Your task to perform on an android device: turn off notifications in google photos Image 0: 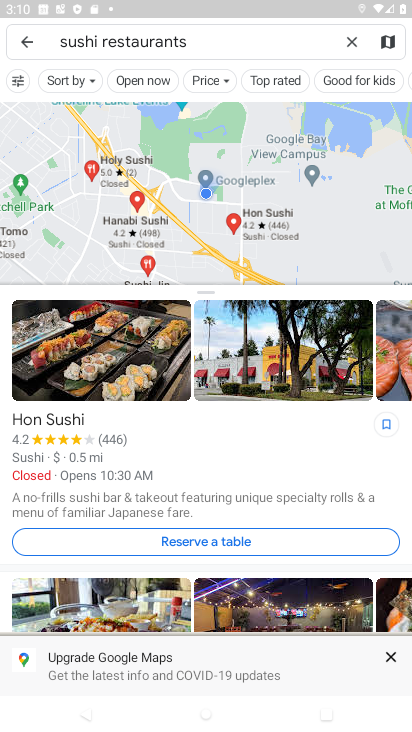
Step 0: press home button
Your task to perform on an android device: turn off notifications in google photos Image 1: 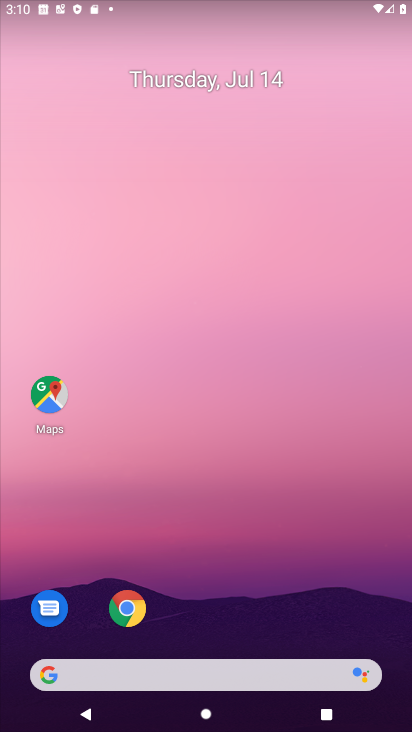
Step 1: drag from (231, 555) to (275, 5)
Your task to perform on an android device: turn off notifications in google photos Image 2: 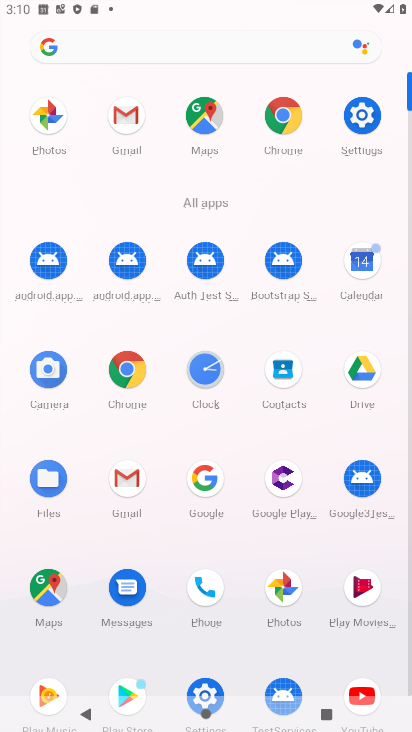
Step 2: click (282, 577)
Your task to perform on an android device: turn off notifications in google photos Image 3: 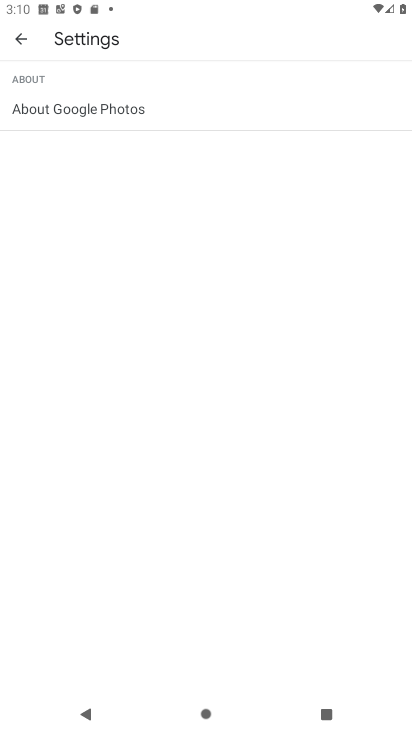
Step 3: click (11, 44)
Your task to perform on an android device: turn off notifications in google photos Image 4: 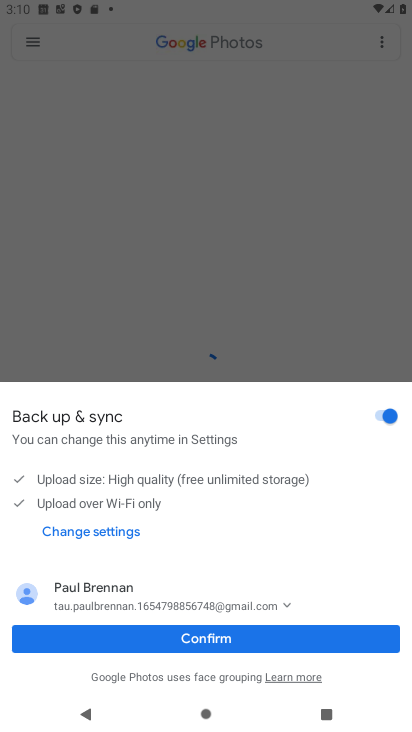
Step 4: click (131, 648)
Your task to perform on an android device: turn off notifications in google photos Image 5: 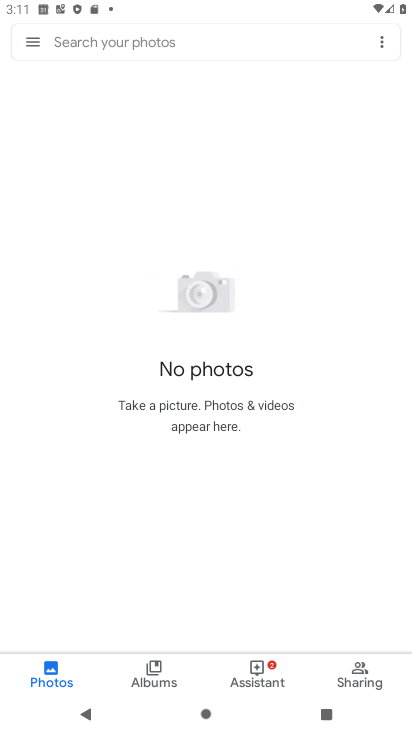
Step 5: click (31, 45)
Your task to perform on an android device: turn off notifications in google photos Image 6: 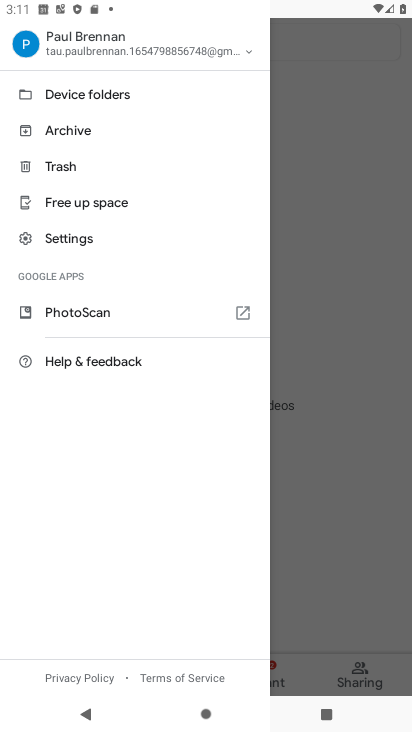
Step 6: click (73, 235)
Your task to perform on an android device: turn off notifications in google photos Image 7: 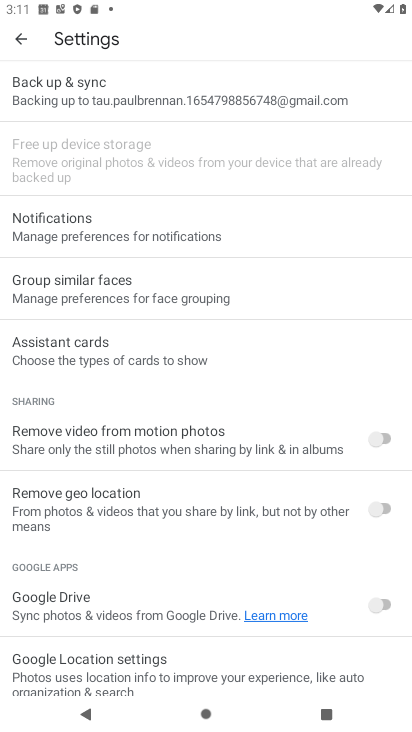
Step 7: click (67, 212)
Your task to perform on an android device: turn off notifications in google photos Image 8: 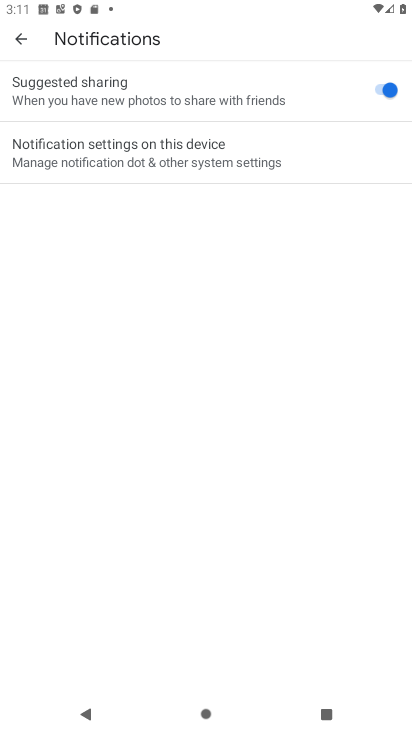
Step 8: click (180, 150)
Your task to perform on an android device: turn off notifications in google photos Image 9: 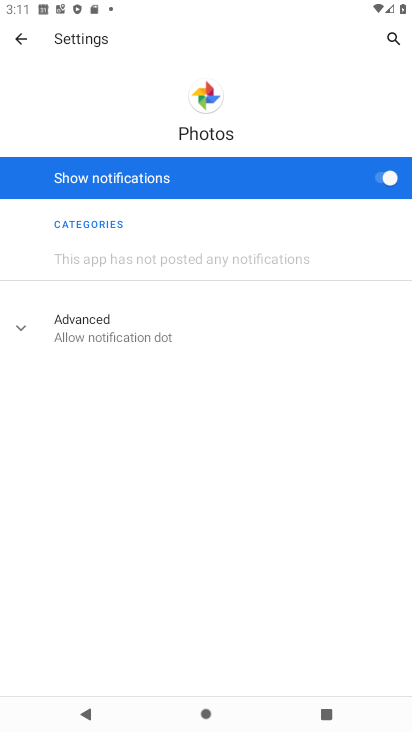
Step 9: click (360, 178)
Your task to perform on an android device: turn off notifications in google photos Image 10: 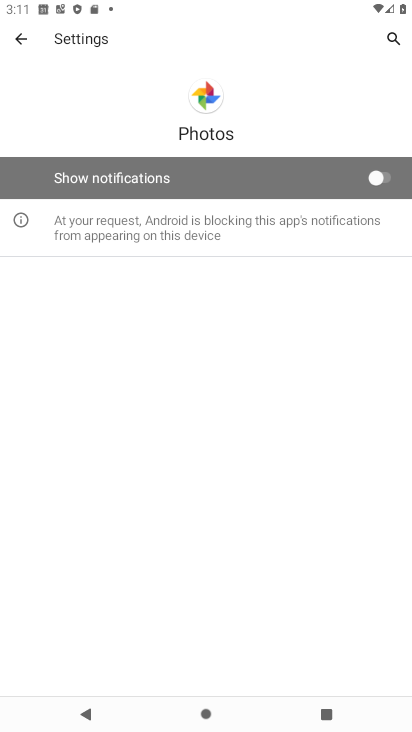
Step 10: task complete